Your task to perform on an android device: remove spam from my inbox in the gmail app Image 0: 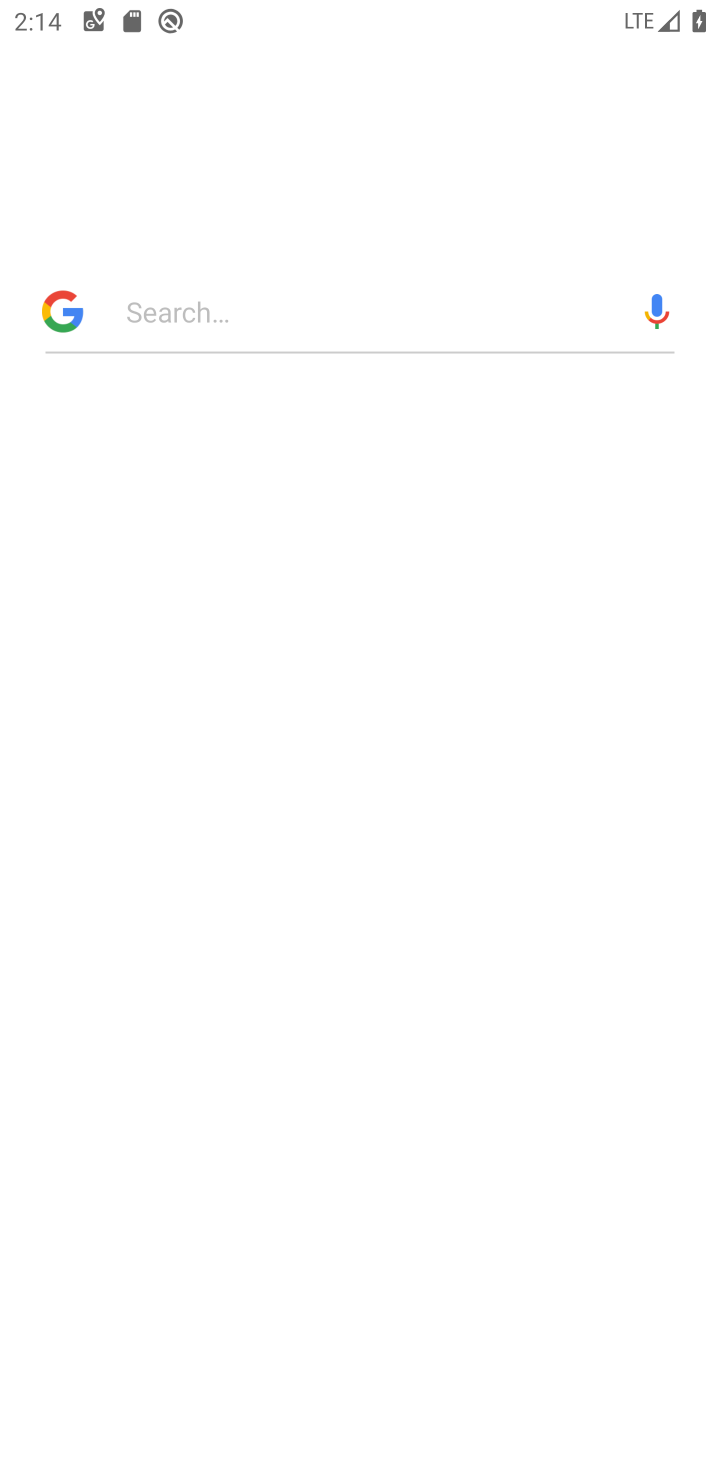
Step 0: drag from (647, 1247) to (672, 1171)
Your task to perform on an android device: remove spam from my inbox in the gmail app Image 1: 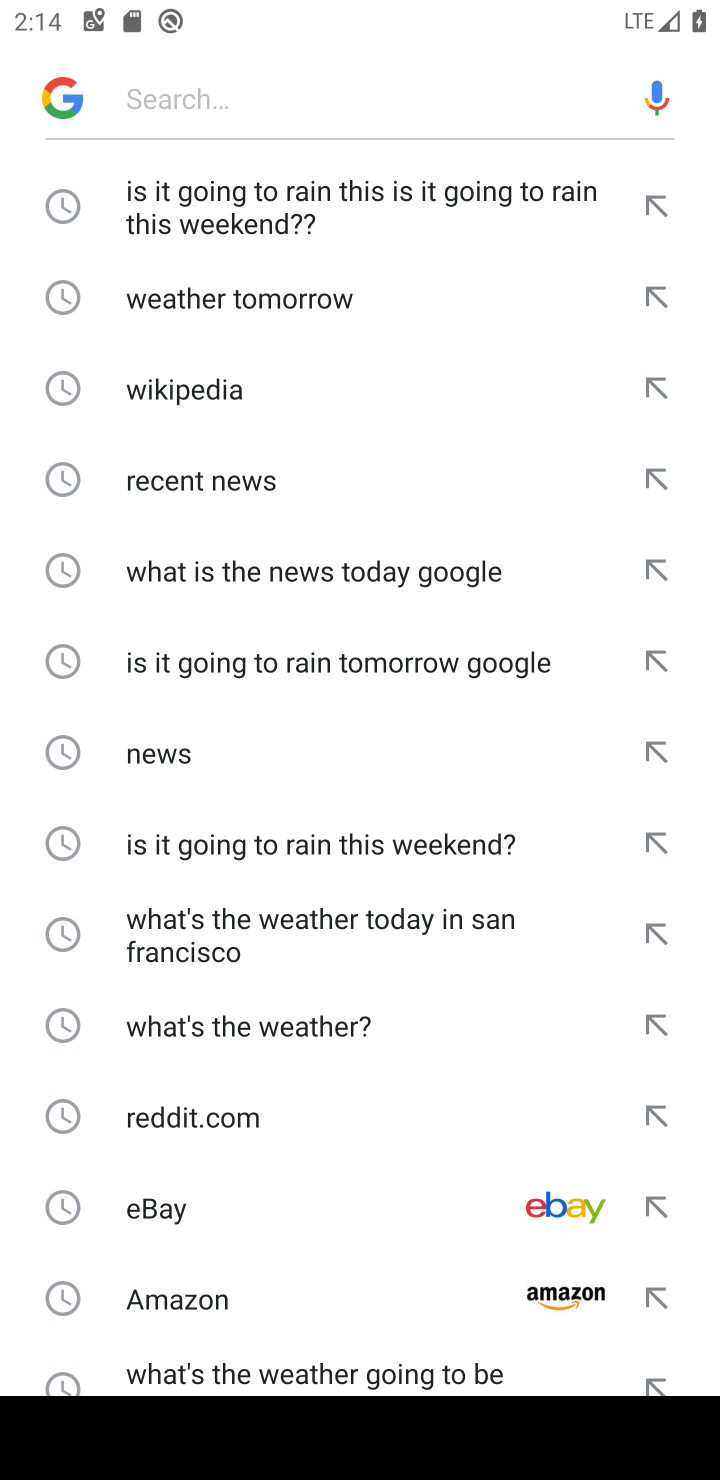
Step 1: press home button
Your task to perform on an android device: remove spam from my inbox in the gmail app Image 2: 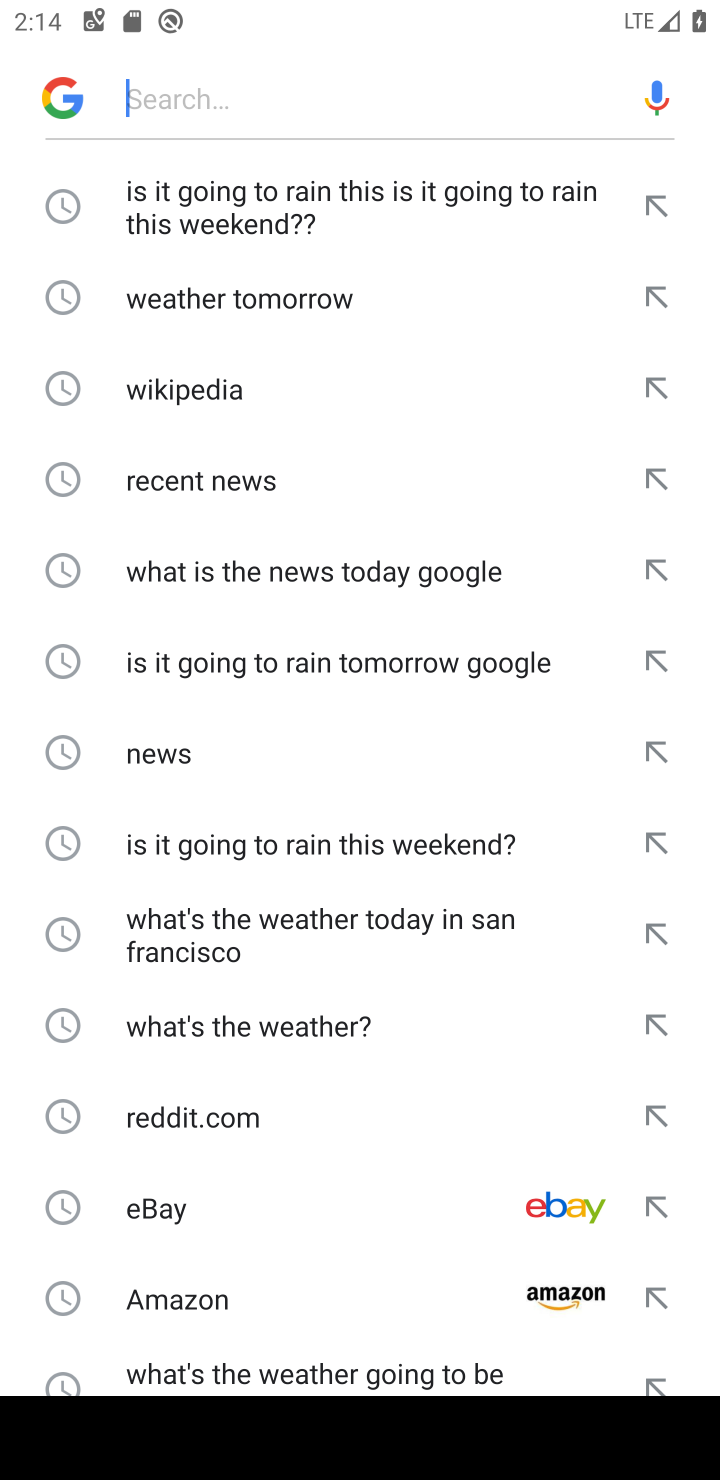
Step 2: click (473, 5)
Your task to perform on an android device: remove spam from my inbox in the gmail app Image 3: 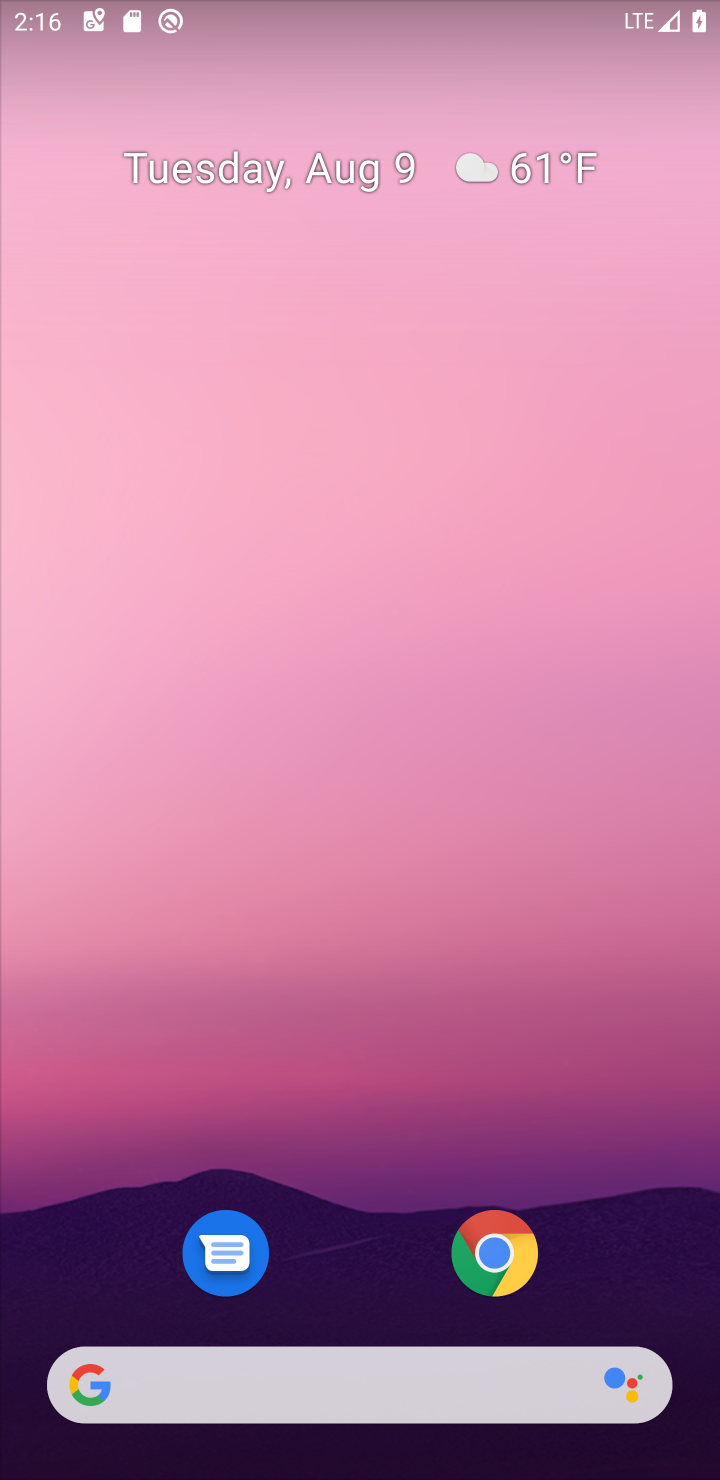
Step 3: drag from (557, 826) to (296, 79)
Your task to perform on an android device: remove spam from my inbox in the gmail app Image 4: 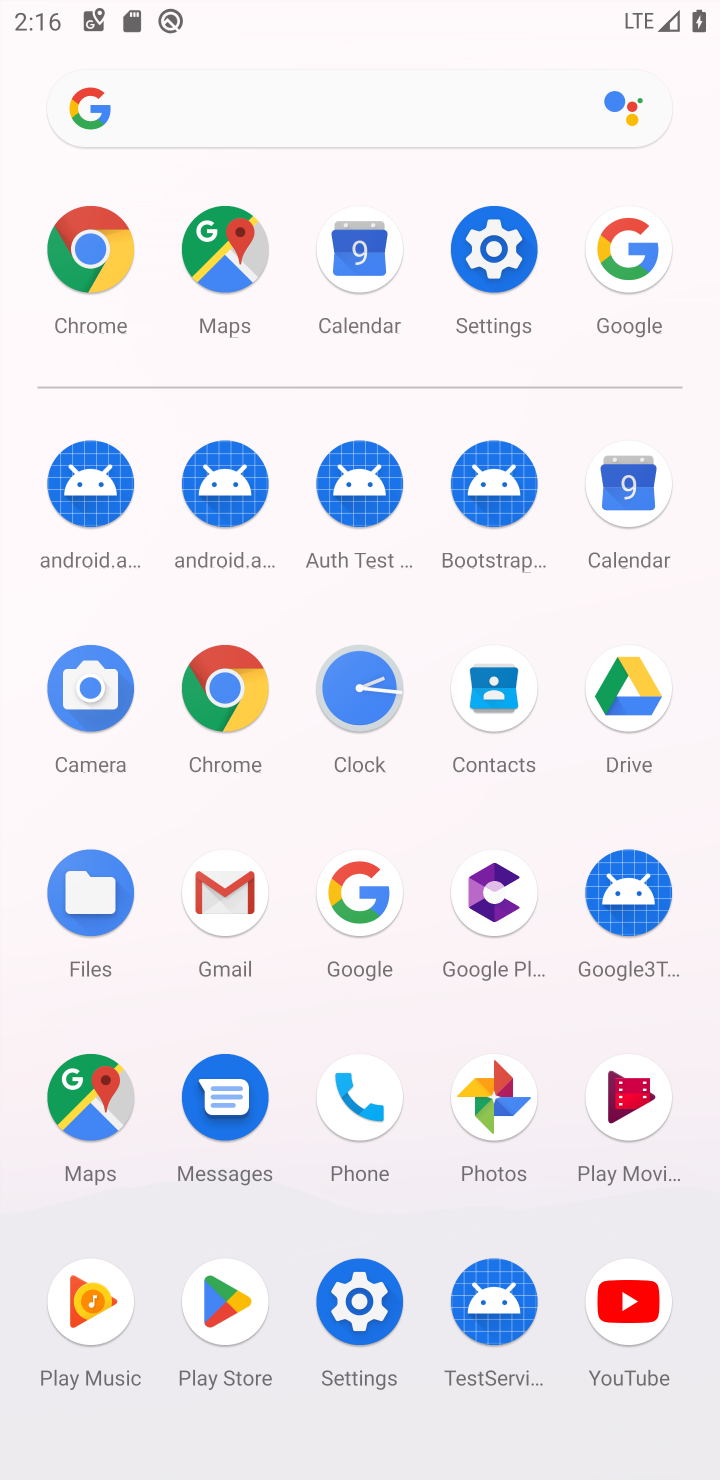
Step 4: click (225, 876)
Your task to perform on an android device: remove spam from my inbox in the gmail app Image 5: 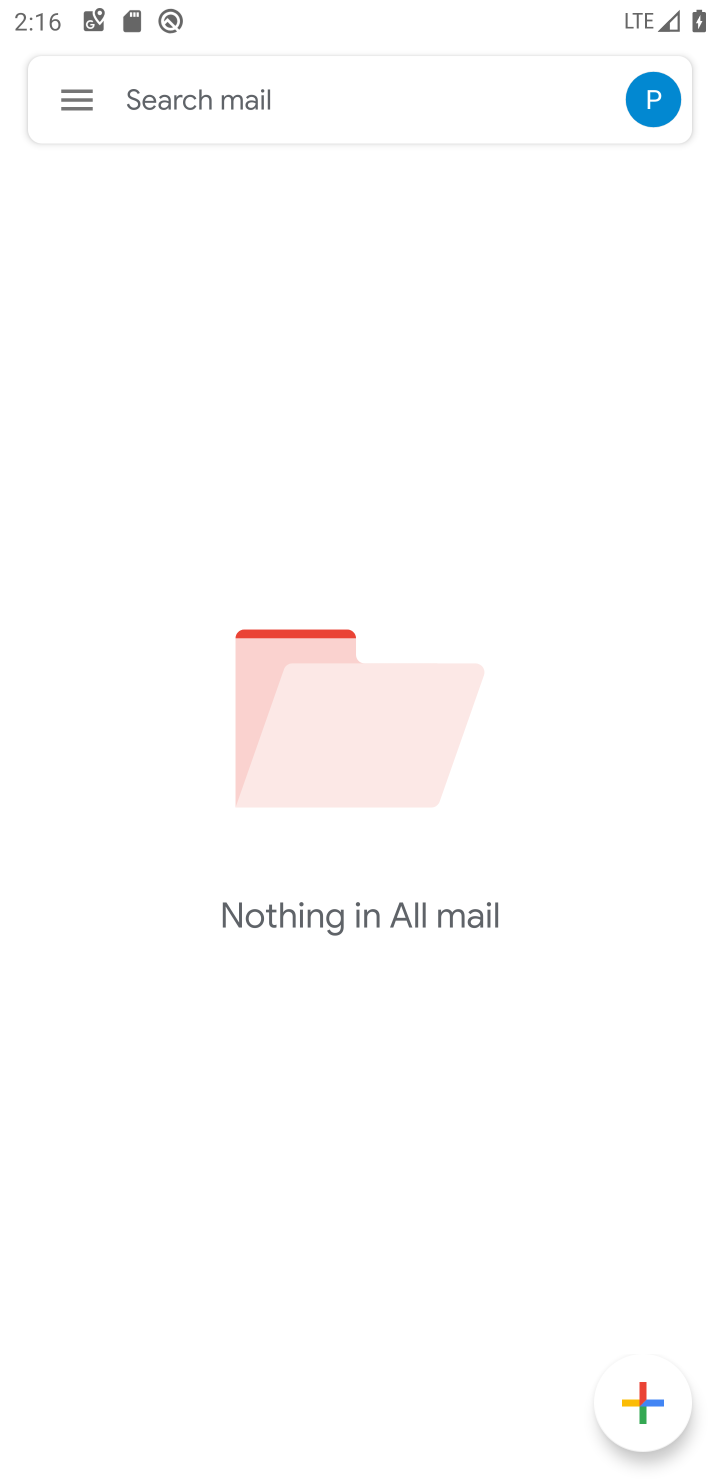
Step 5: task complete